Your task to perform on an android device: check google app version Image 0: 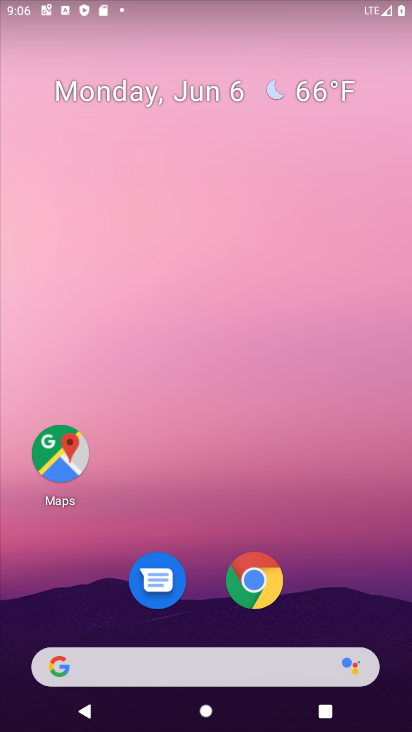
Step 0: drag from (353, 584) to (367, 39)
Your task to perform on an android device: check google app version Image 1: 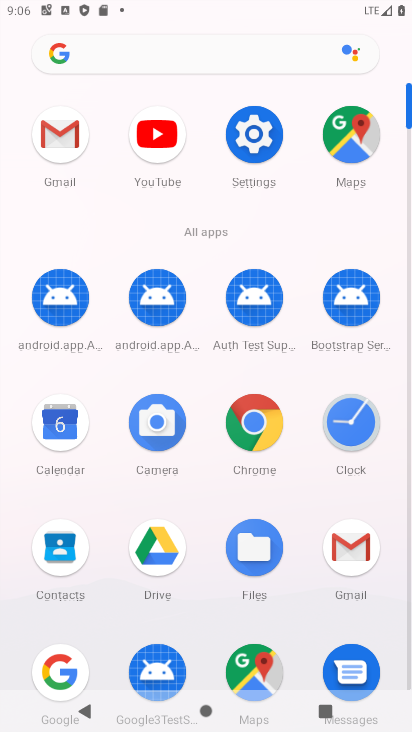
Step 1: click (64, 665)
Your task to perform on an android device: check google app version Image 2: 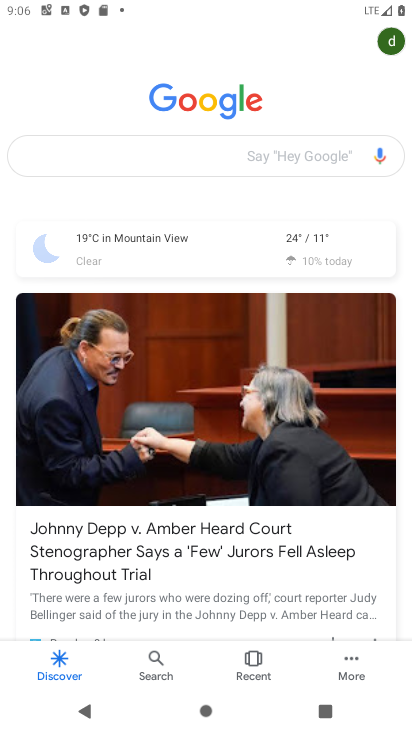
Step 2: click (366, 668)
Your task to perform on an android device: check google app version Image 3: 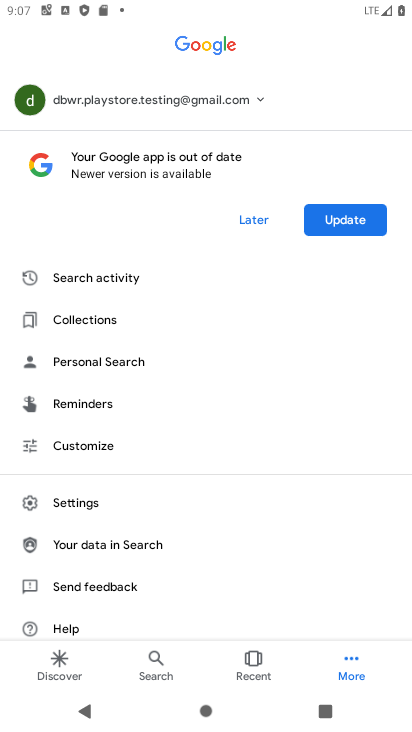
Step 3: drag from (200, 592) to (326, 67)
Your task to perform on an android device: check google app version Image 4: 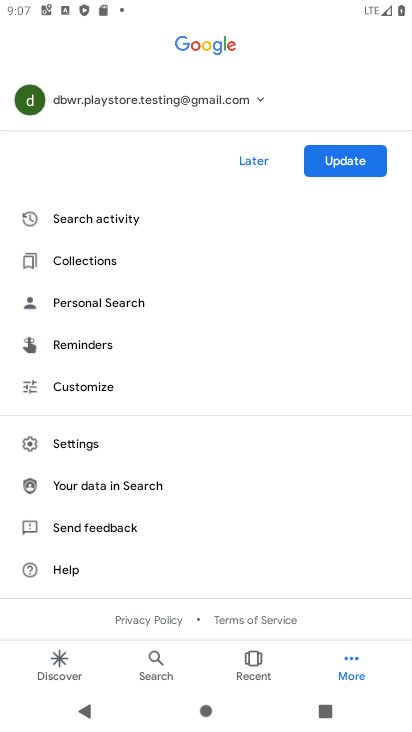
Step 4: click (68, 442)
Your task to perform on an android device: check google app version Image 5: 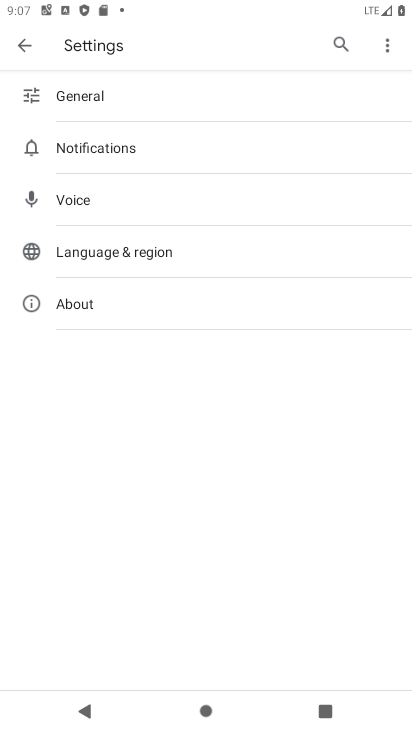
Step 5: click (88, 313)
Your task to perform on an android device: check google app version Image 6: 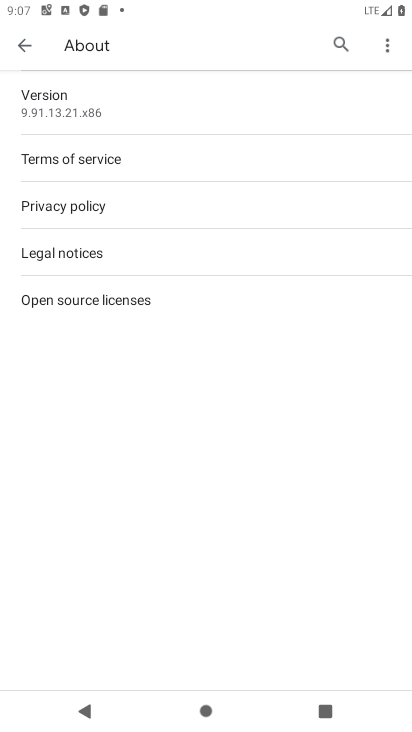
Step 6: click (76, 106)
Your task to perform on an android device: check google app version Image 7: 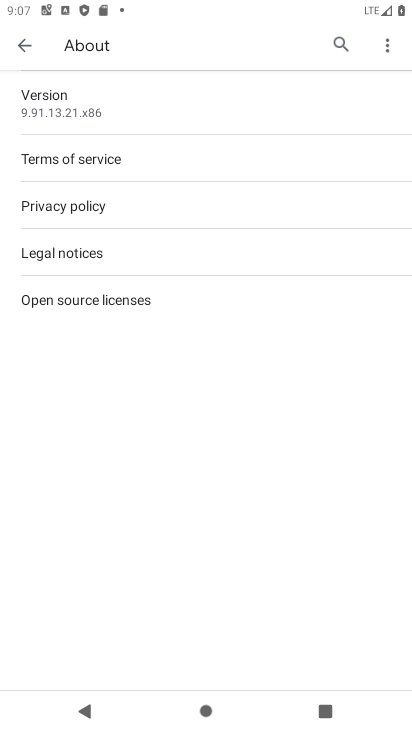
Step 7: task complete